Your task to perform on an android device: Open Google Image 0: 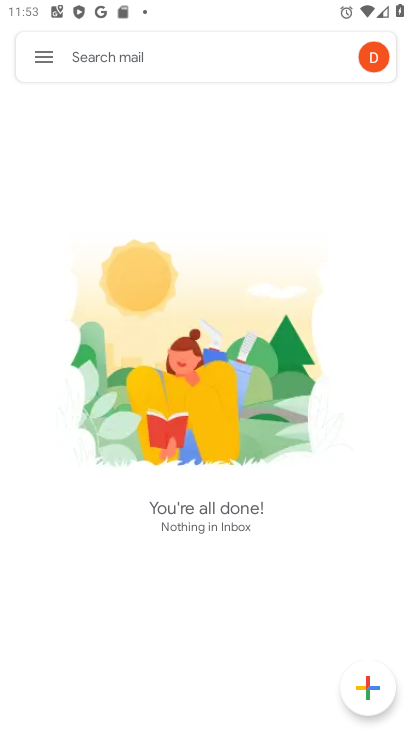
Step 0: press home button
Your task to perform on an android device: Open Google Image 1: 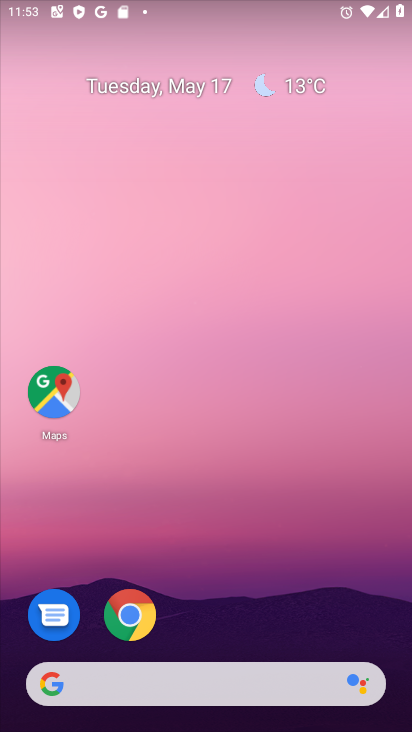
Step 1: drag from (230, 582) to (218, 199)
Your task to perform on an android device: Open Google Image 2: 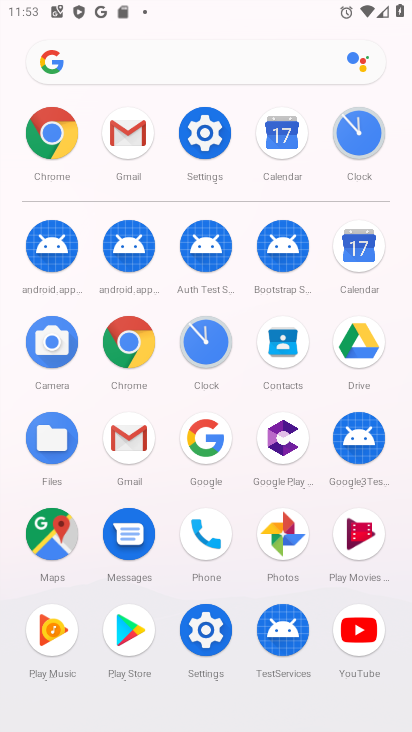
Step 2: click (207, 442)
Your task to perform on an android device: Open Google Image 3: 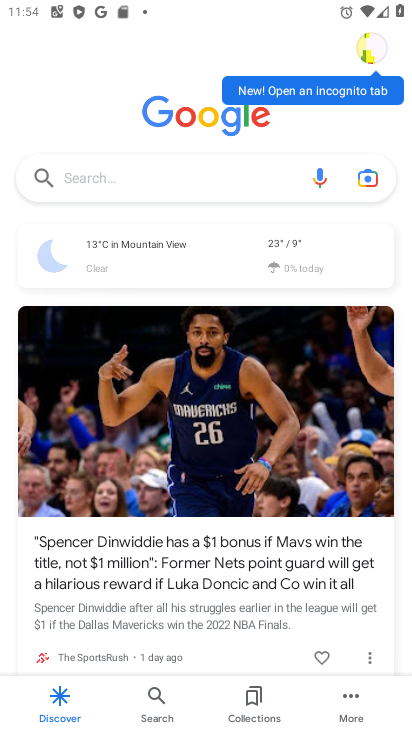
Step 3: task complete